Your task to perform on an android device: Check the news Image 0: 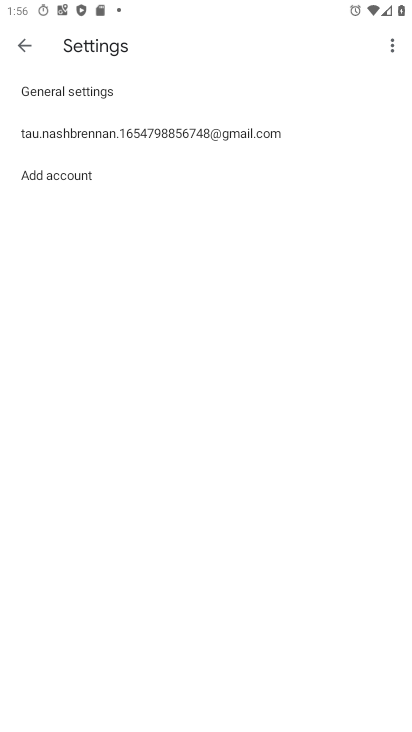
Step 0: press home button
Your task to perform on an android device: Check the news Image 1: 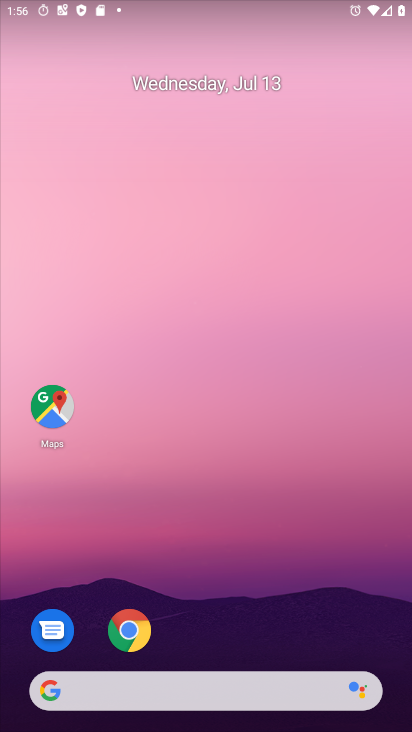
Step 1: task complete